Your task to perform on an android device: add a contact in the contacts app Image 0: 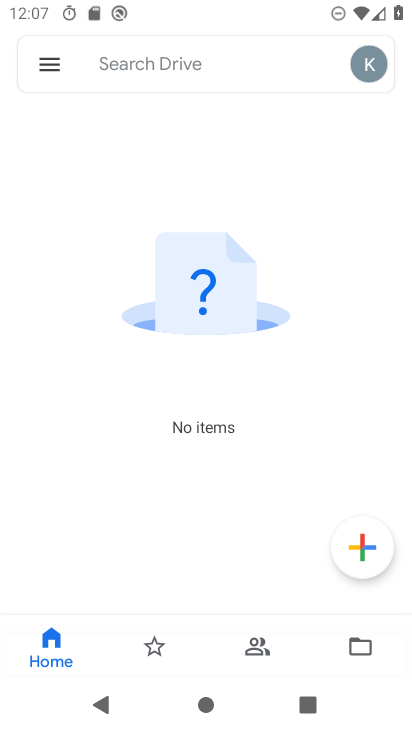
Step 0: press home button
Your task to perform on an android device: add a contact in the contacts app Image 1: 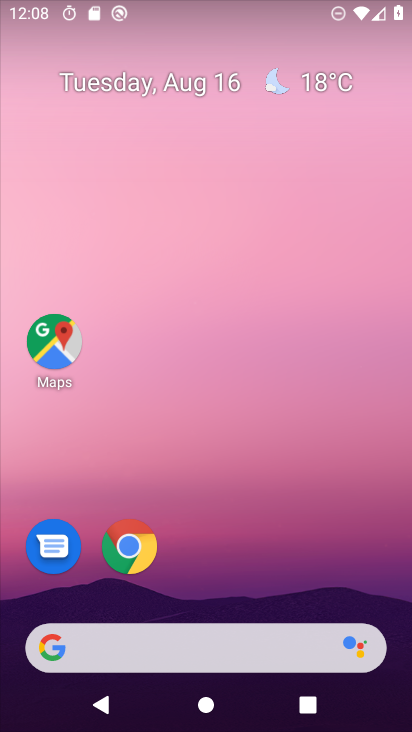
Step 1: drag from (219, 588) to (235, 106)
Your task to perform on an android device: add a contact in the contacts app Image 2: 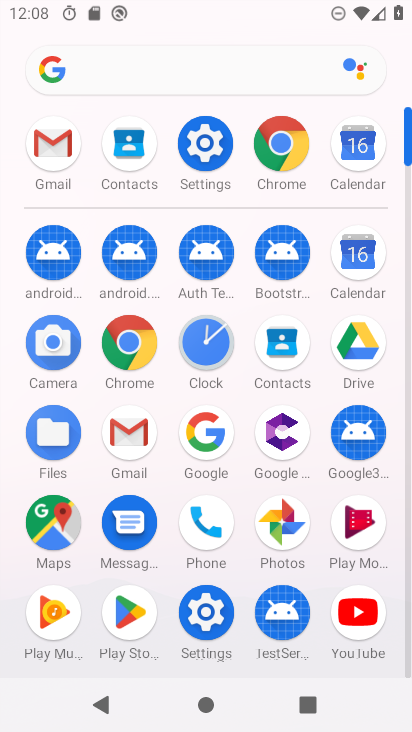
Step 2: click (285, 354)
Your task to perform on an android device: add a contact in the contacts app Image 3: 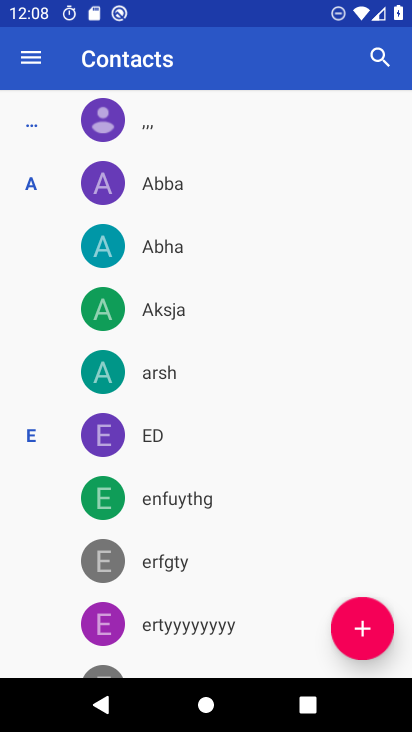
Step 3: click (364, 631)
Your task to perform on an android device: add a contact in the contacts app Image 4: 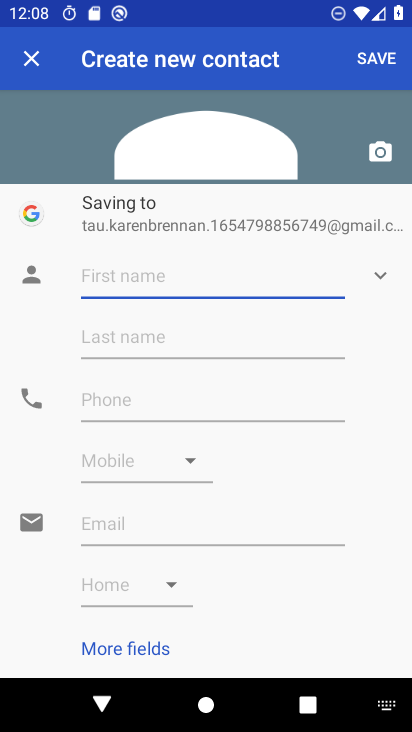
Step 4: type "yytytytyt"
Your task to perform on an android device: add a contact in the contacts app Image 5: 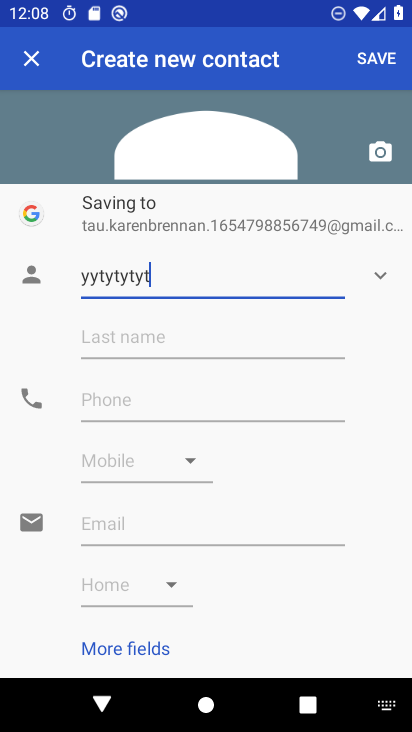
Step 5: type ""
Your task to perform on an android device: add a contact in the contacts app Image 6: 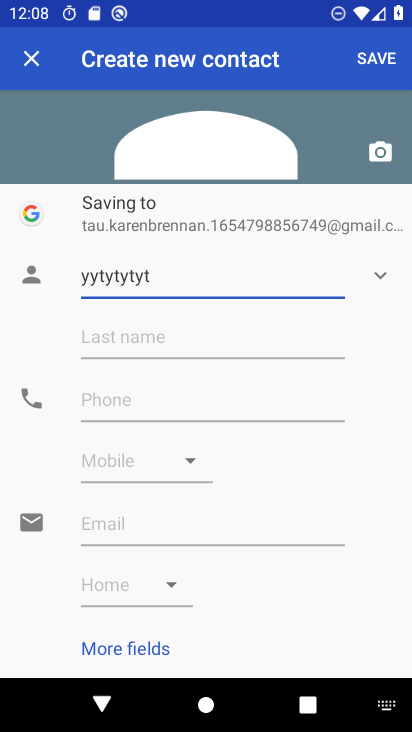
Step 6: click (120, 403)
Your task to perform on an android device: add a contact in the contacts app Image 7: 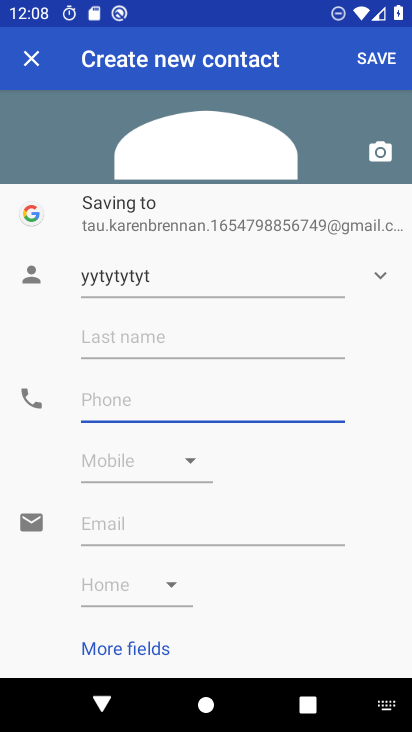
Step 7: type "878787"
Your task to perform on an android device: add a contact in the contacts app Image 8: 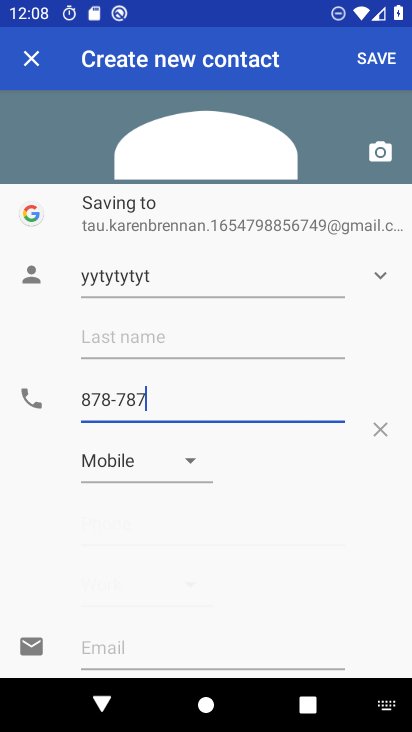
Step 8: type ""
Your task to perform on an android device: add a contact in the contacts app Image 9: 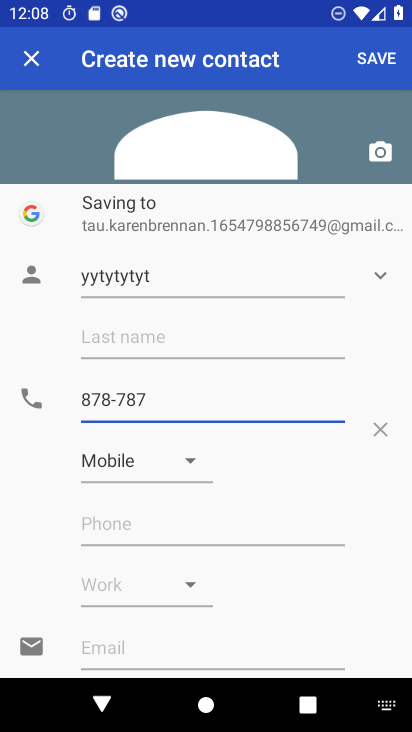
Step 9: click (384, 55)
Your task to perform on an android device: add a contact in the contacts app Image 10: 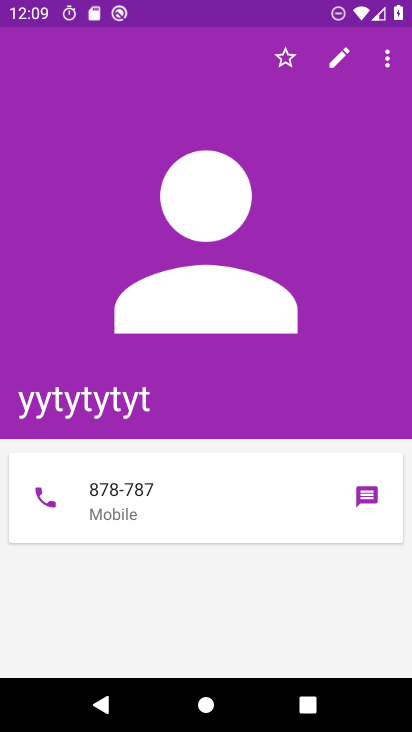
Step 10: task complete